Your task to perform on an android device: open app "Yahoo Mail" (install if not already installed) and go to login screen Image 0: 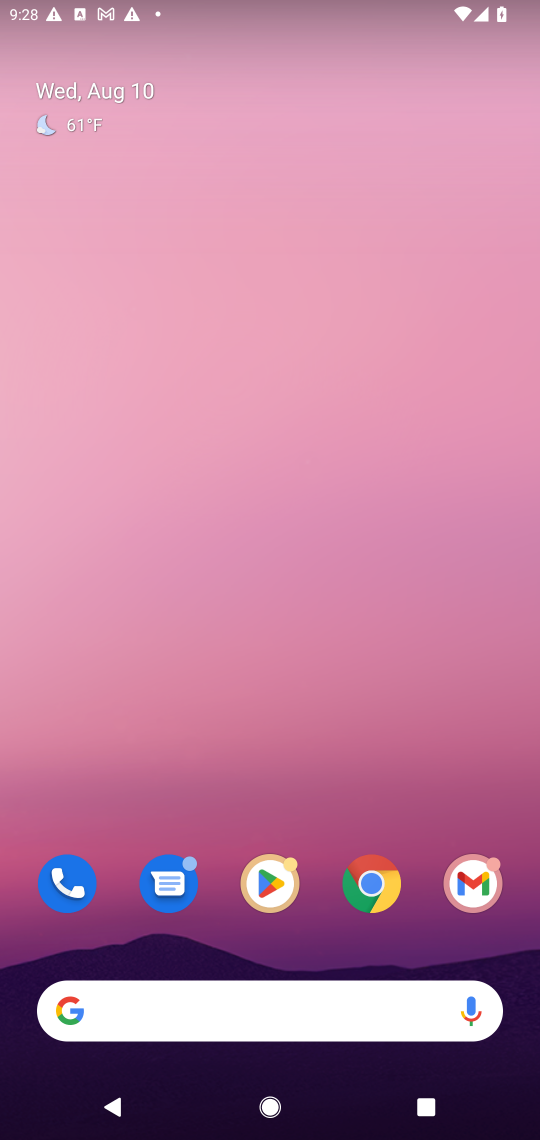
Step 0: click (280, 890)
Your task to perform on an android device: open app "Yahoo Mail" (install if not already installed) and go to login screen Image 1: 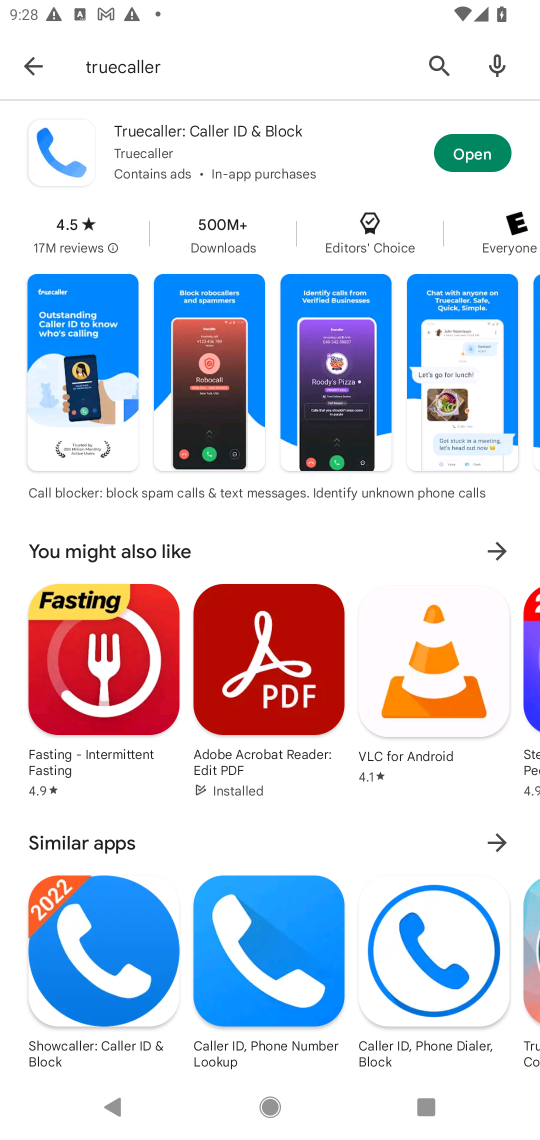
Step 1: click (431, 52)
Your task to perform on an android device: open app "Yahoo Mail" (install if not already installed) and go to login screen Image 2: 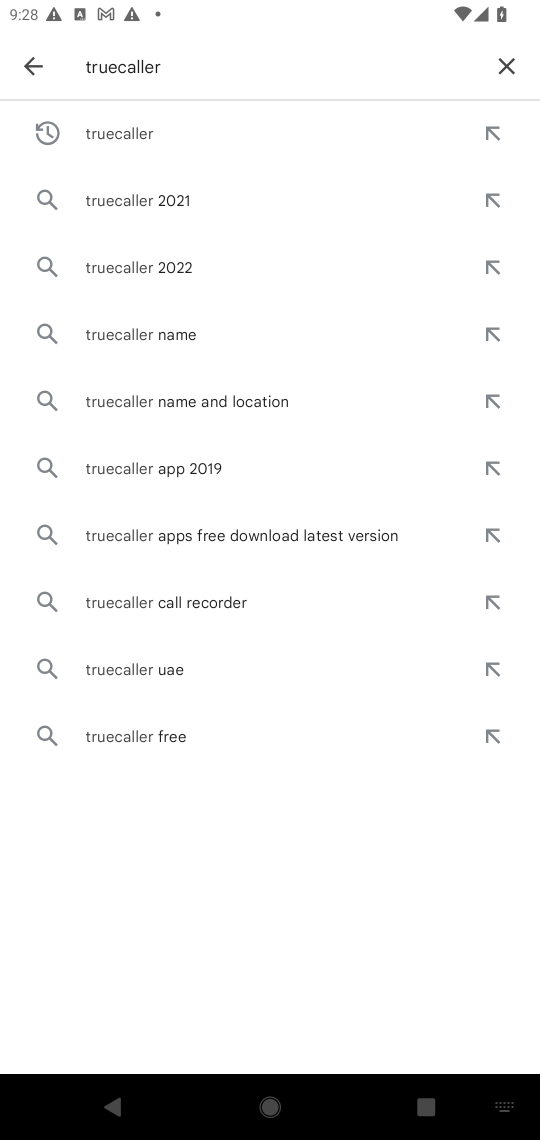
Step 2: click (498, 64)
Your task to perform on an android device: open app "Yahoo Mail" (install if not already installed) and go to login screen Image 3: 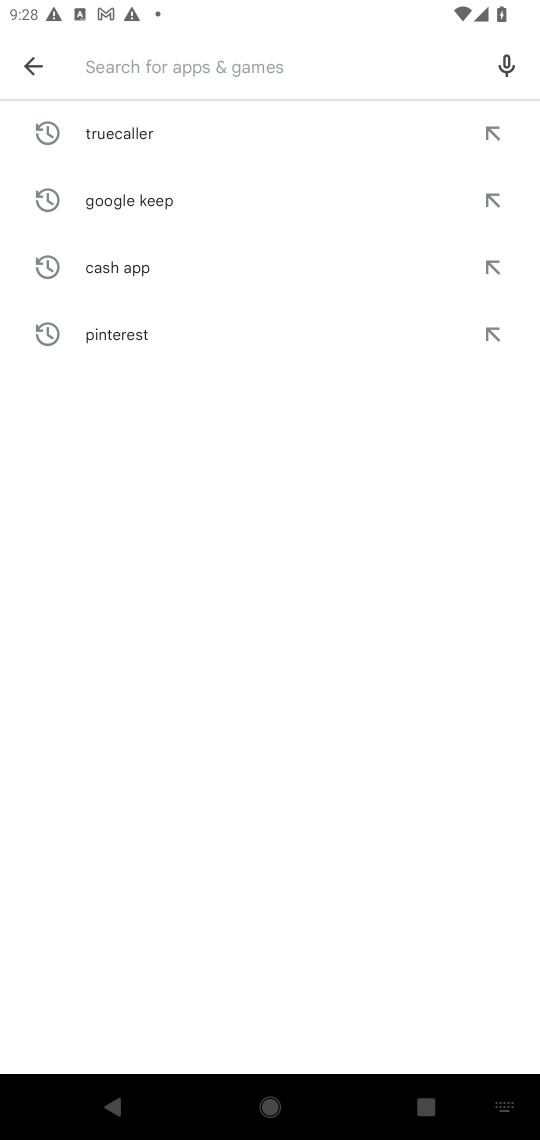
Step 3: type "Yahoo Mail"
Your task to perform on an android device: open app "Yahoo Mail" (install if not already installed) and go to login screen Image 4: 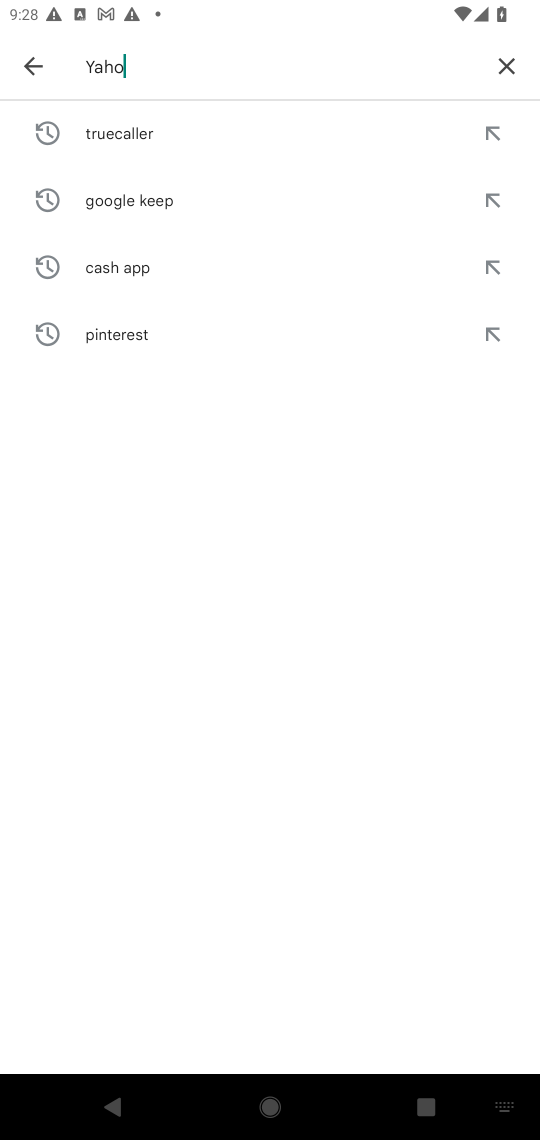
Step 4: type ""
Your task to perform on an android device: open app "Yahoo Mail" (install if not already installed) and go to login screen Image 5: 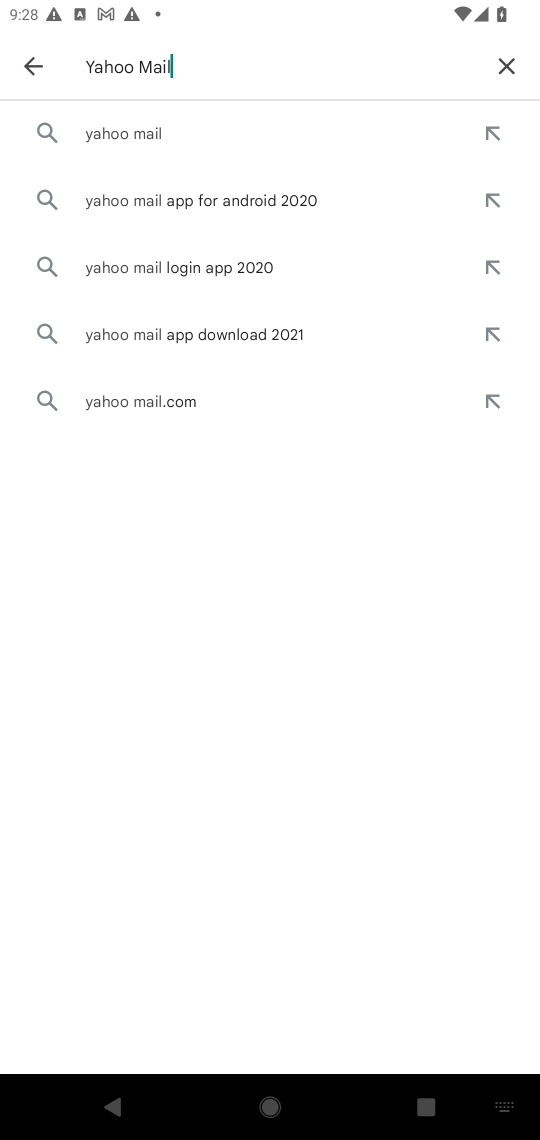
Step 5: click (142, 144)
Your task to perform on an android device: open app "Yahoo Mail" (install if not already installed) and go to login screen Image 6: 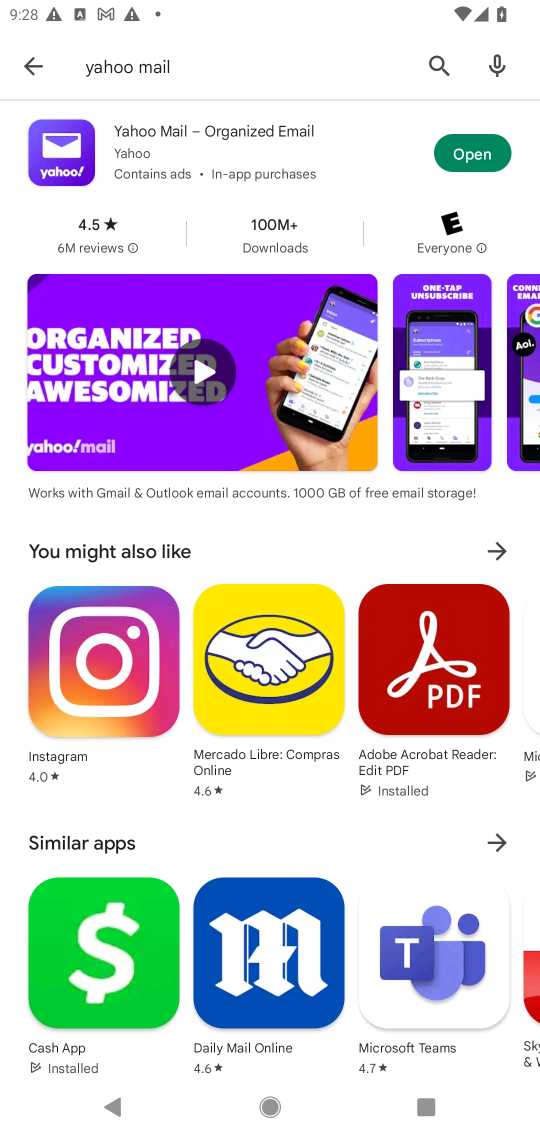
Step 6: click (466, 163)
Your task to perform on an android device: open app "Yahoo Mail" (install if not already installed) and go to login screen Image 7: 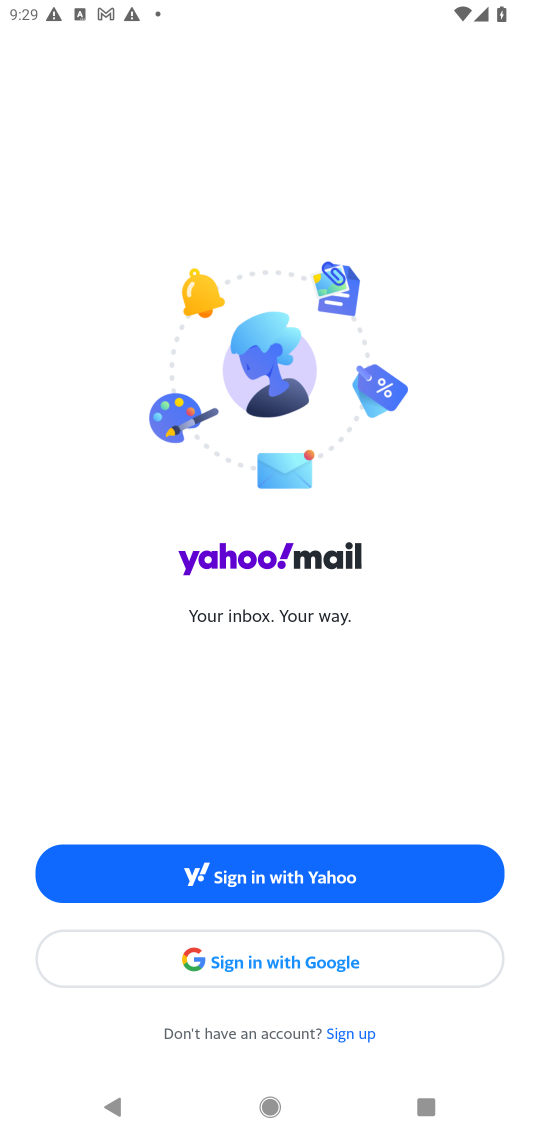
Step 7: task complete